Your task to perform on an android device: set the timer Image 0: 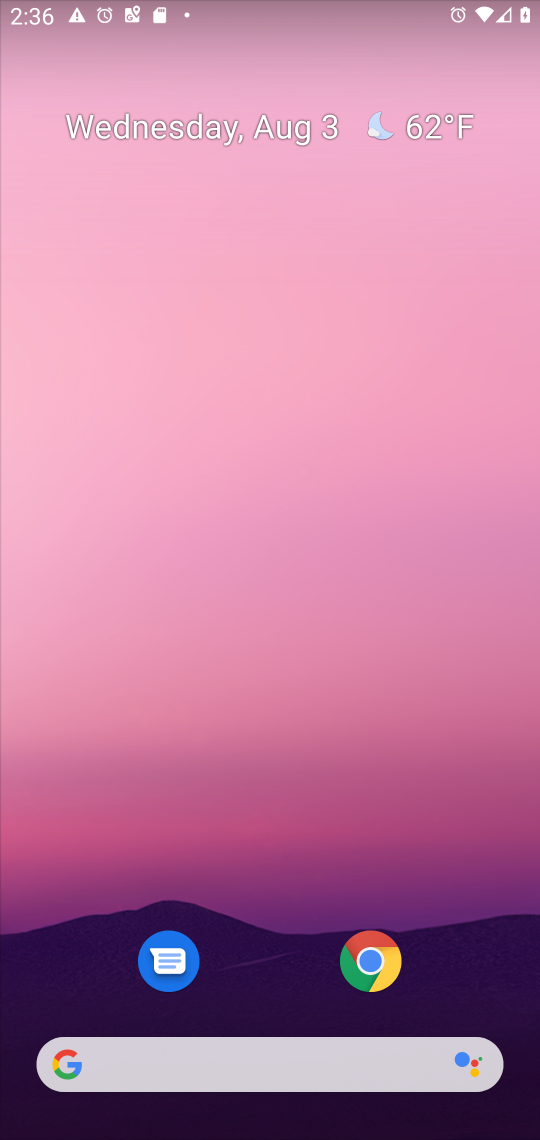
Step 0: drag from (274, 986) to (284, 0)
Your task to perform on an android device: set the timer Image 1: 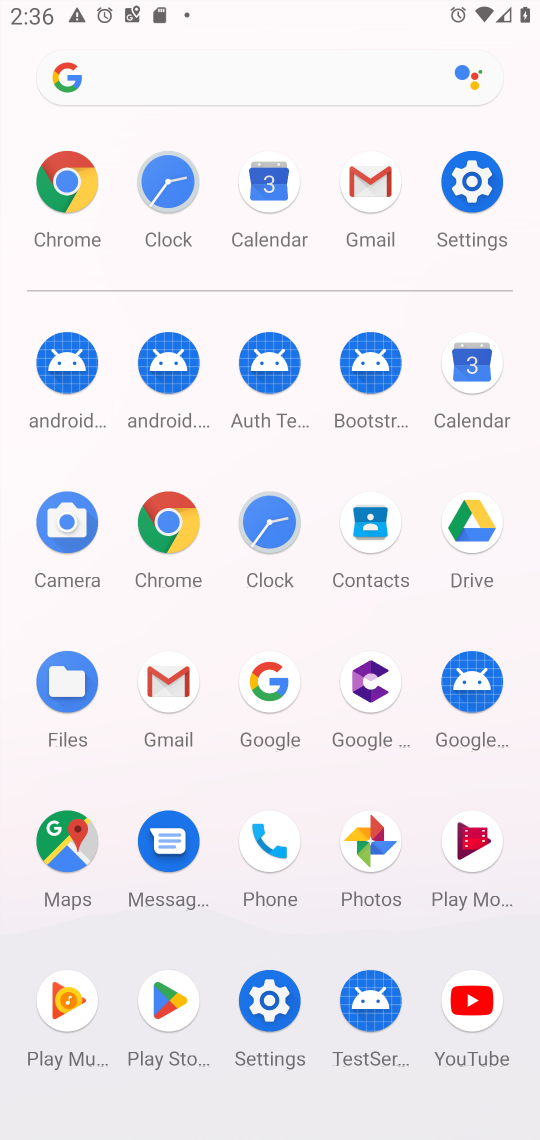
Step 1: click (277, 528)
Your task to perform on an android device: set the timer Image 2: 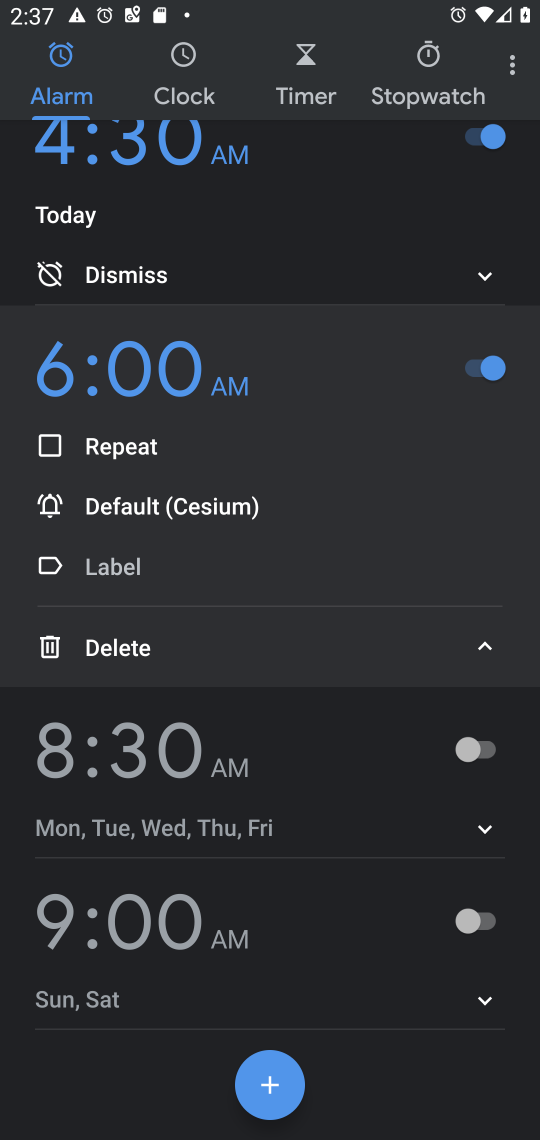
Step 2: click (304, 86)
Your task to perform on an android device: set the timer Image 3: 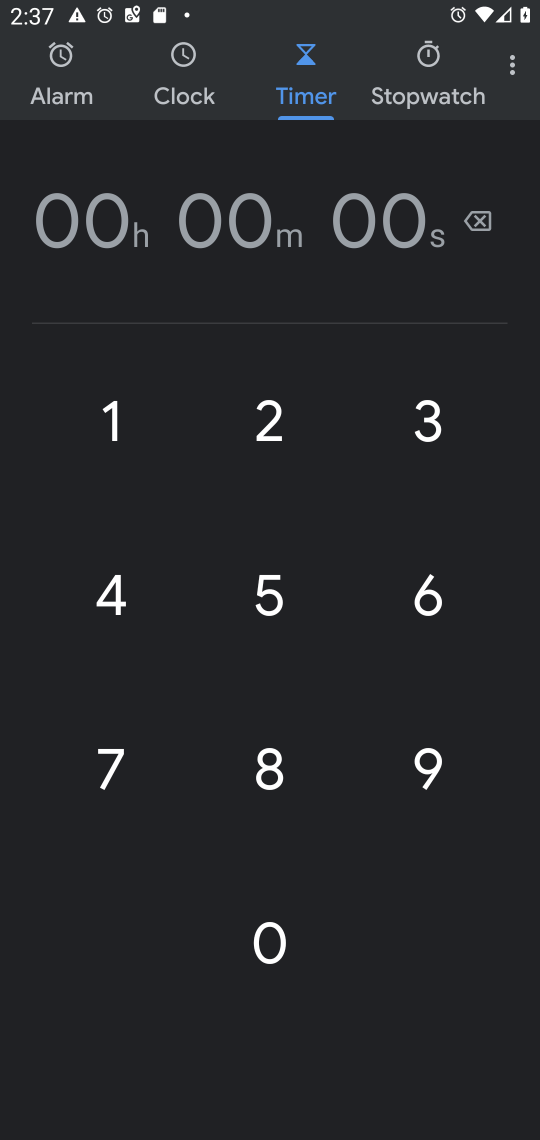
Step 3: click (275, 764)
Your task to perform on an android device: set the timer Image 4: 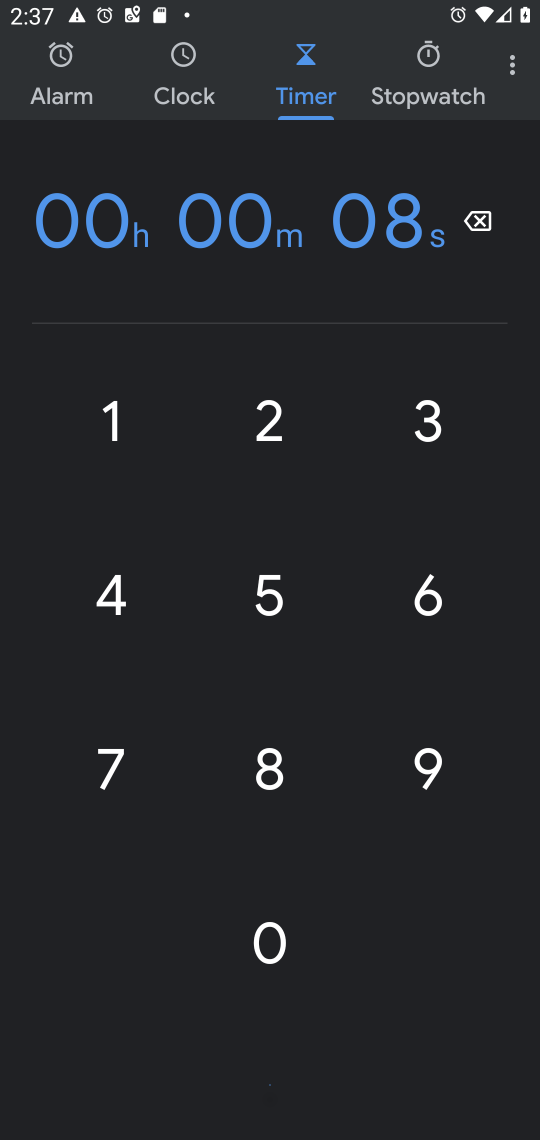
Step 4: click (266, 939)
Your task to perform on an android device: set the timer Image 5: 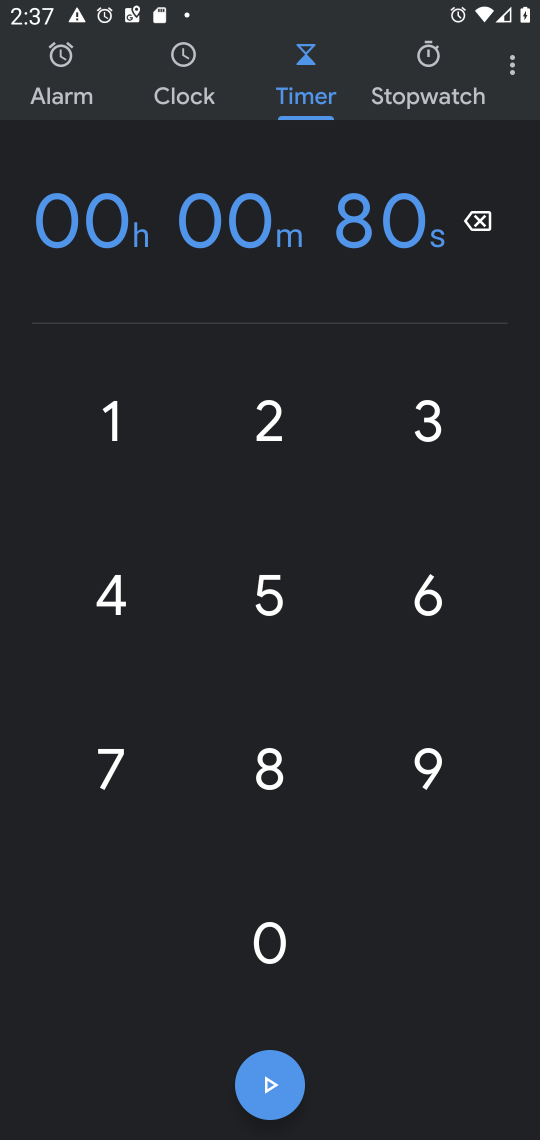
Step 5: click (253, 1079)
Your task to perform on an android device: set the timer Image 6: 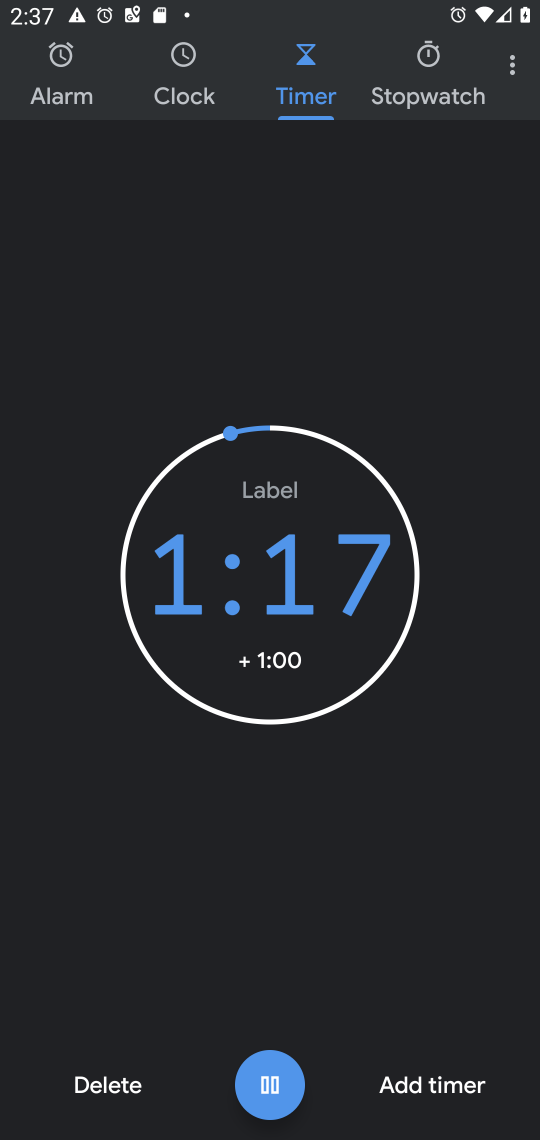
Step 6: task complete